Your task to perform on an android device: all mails in gmail Image 0: 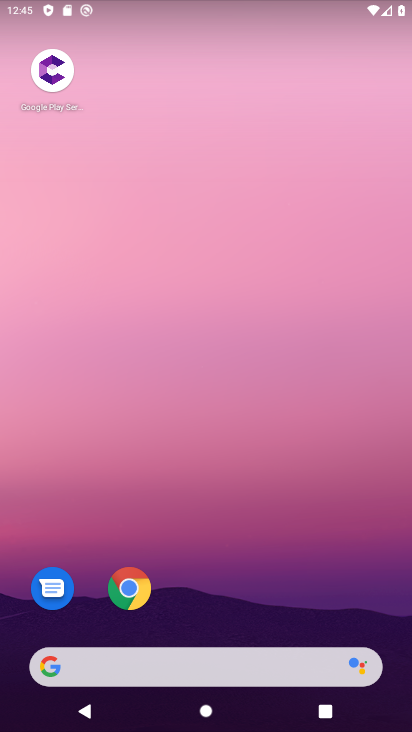
Step 0: drag from (253, 611) to (271, 23)
Your task to perform on an android device: all mails in gmail Image 1: 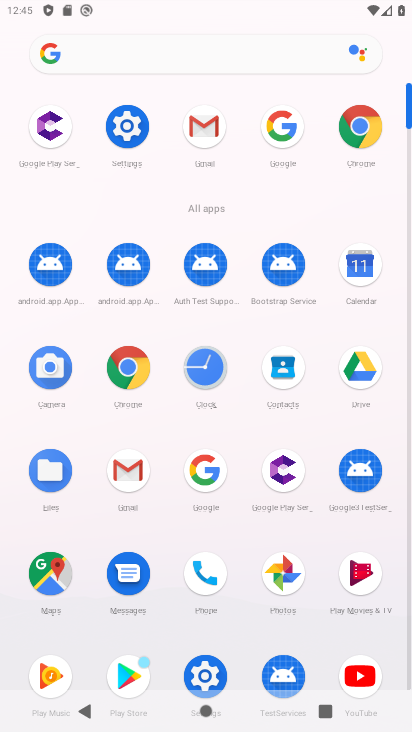
Step 1: click (117, 472)
Your task to perform on an android device: all mails in gmail Image 2: 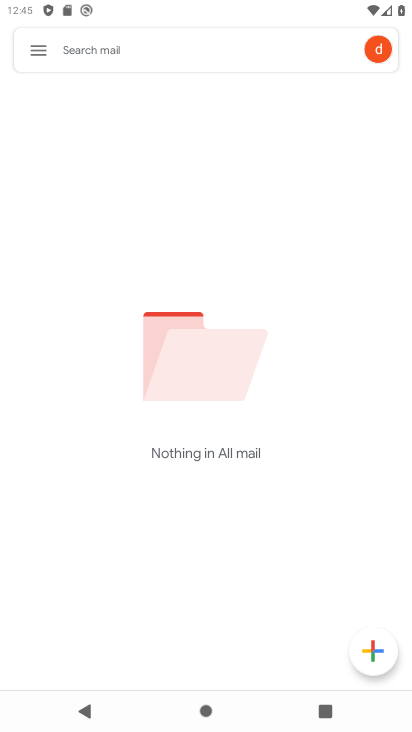
Step 2: click (44, 50)
Your task to perform on an android device: all mails in gmail Image 3: 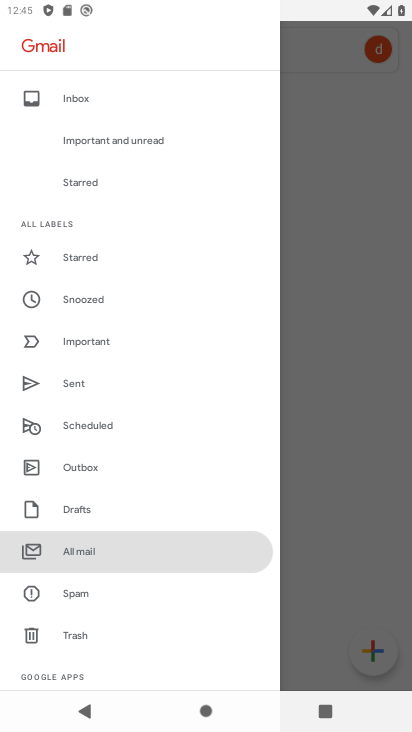
Step 3: click (94, 552)
Your task to perform on an android device: all mails in gmail Image 4: 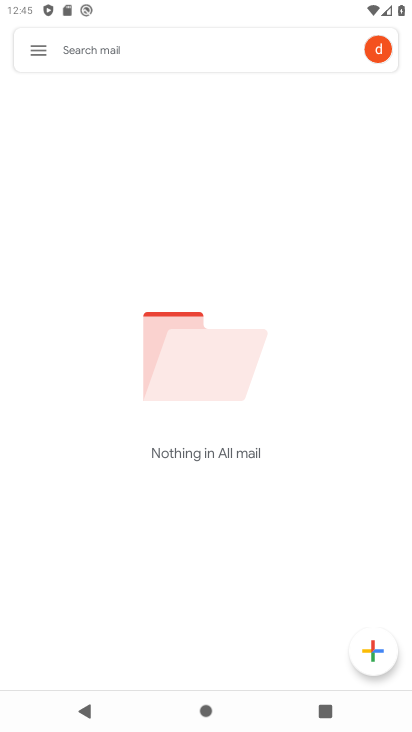
Step 4: task complete